Your task to perform on an android device: turn off priority inbox in the gmail app Image 0: 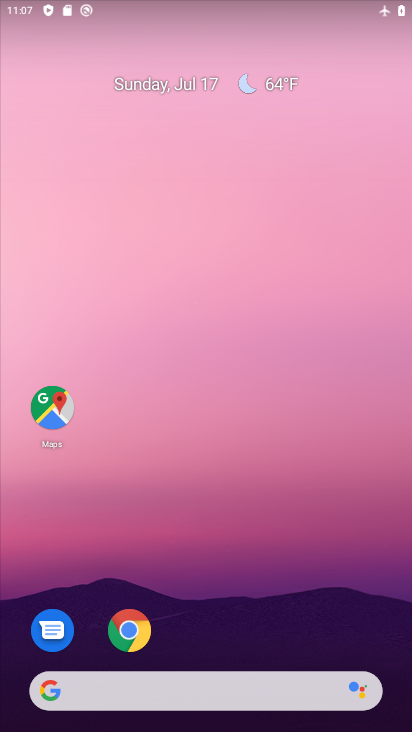
Step 0: drag from (383, 642) to (352, 26)
Your task to perform on an android device: turn off priority inbox in the gmail app Image 1: 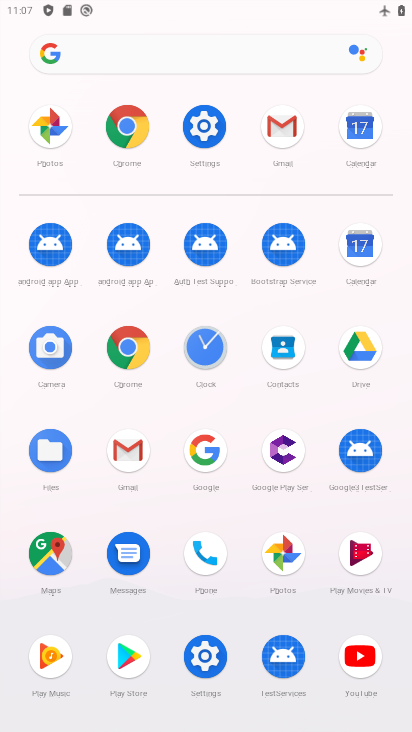
Step 1: click (126, 451)
Your task to perform on an android device: turn off priority inbox in the gmail app Image 2: 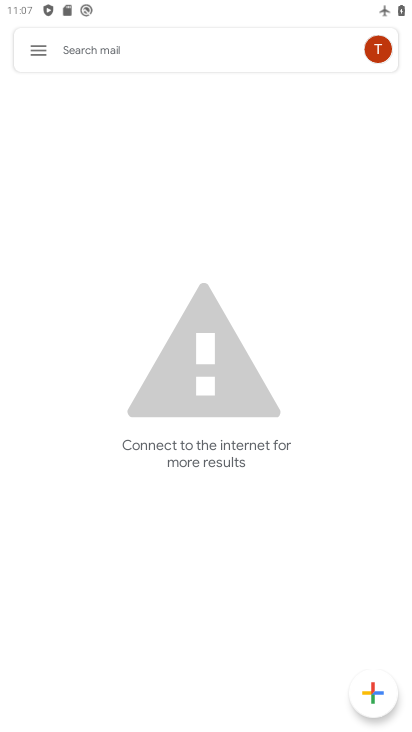
Step 2: click (40, 53)
Your task to perform on an android device: turn off priority inbox in the gmail app Image 3: 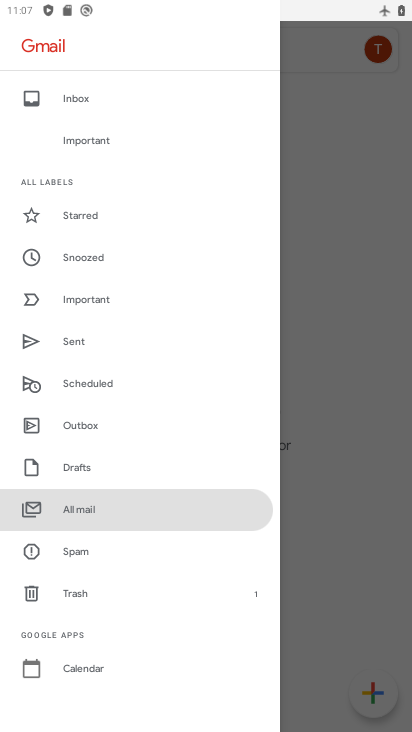
Step 3: drag from (130, 670) to (127, 191)
Your task to perform on an android device: turn off priority inbox in the gmail app Image 4: 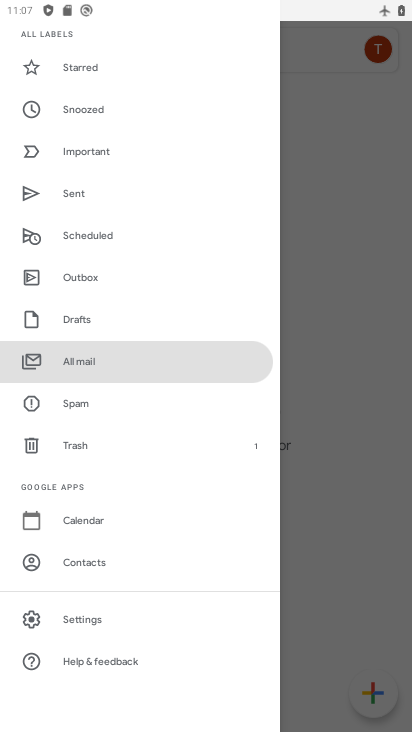
Step 4: click (85, 620)
Your task to perform on an android device: turn off priority inbox in the gmail app Image 5: 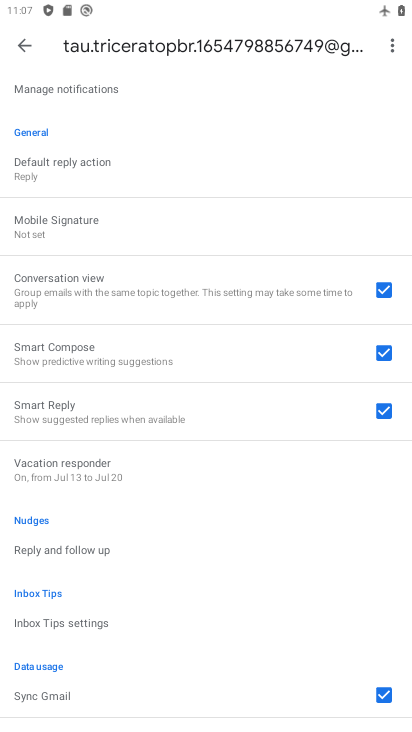
Step 5: drag from (176, 182) to (199, 424)
Your task to perform on an android device: turn off priority inbox in the gmail app Image 6: 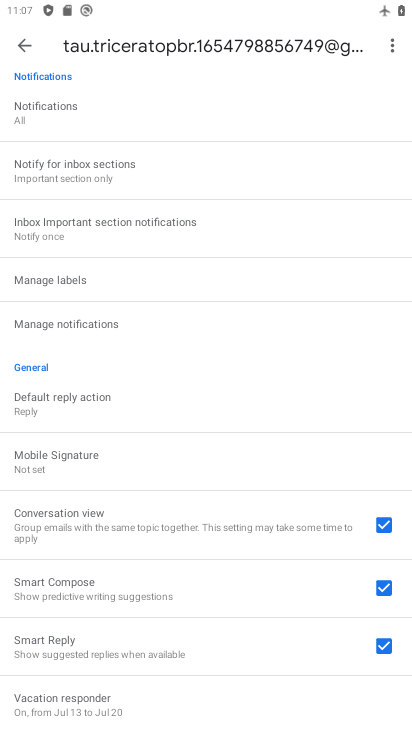
Step 6: drag from (213, 208) to (207, 516)
Your task to perform on an android device: turn off priority inbox in the gmail app Image 7: 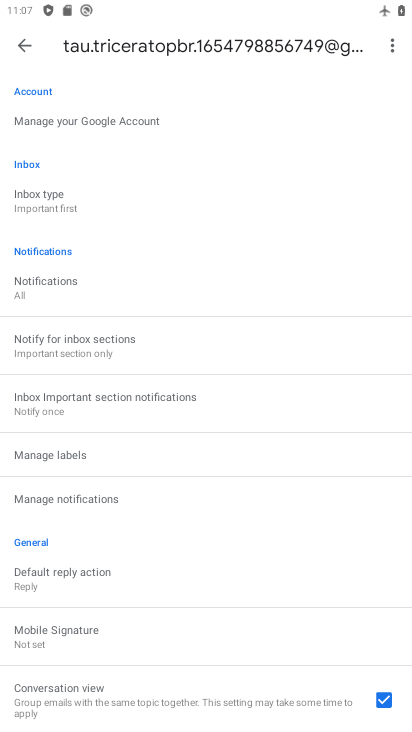
Step 7: click (47, 200)
Your task to perform on an android device: turn off priority inbox in the gmail app Image 8: 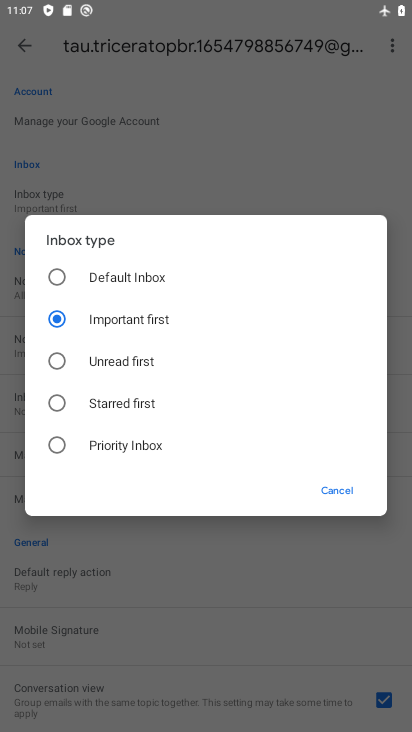
Step 8: task complete